Your task to perform on an android device: Open internet settings Image 0: 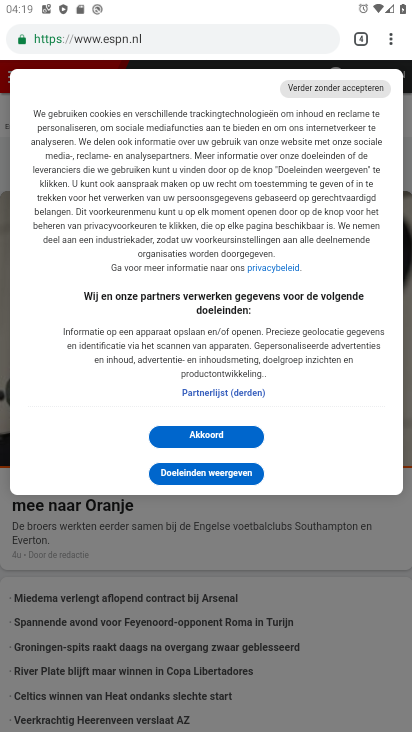
Step 0: press home button
Your task to perform on an android device: Open internet settings Image 1: 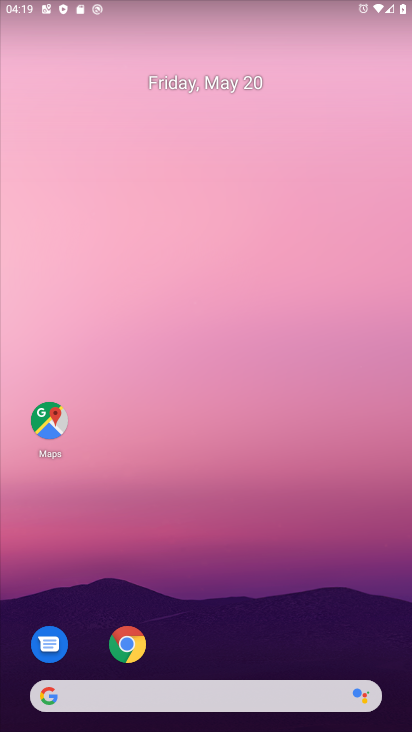
Step 1: drag from (245, 611) to (209, 126)
Your task to perform on an android device: Open internet settings Image 2: 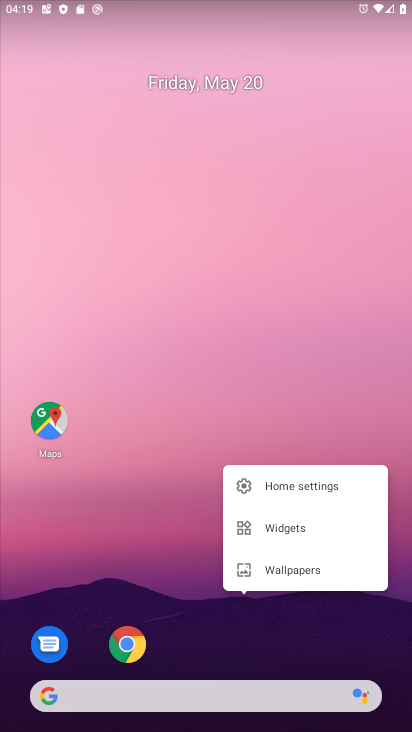
Step 2: click (209, 126)
Your task to perform on an android device: Open internet settings Image 3: 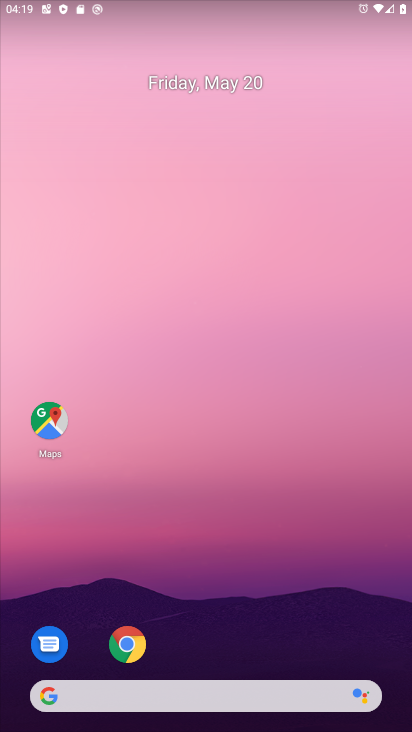
Step 3: drag from (256, 581) to (183, 64)
Your task to perform on an android device: Open internet settings Image 4: 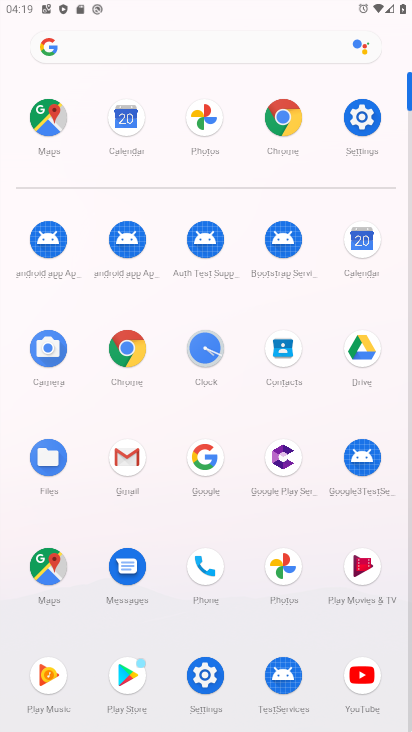
Step 4: click (358, 152)
Your task to perform on an android device: Open internet settings Image 5: 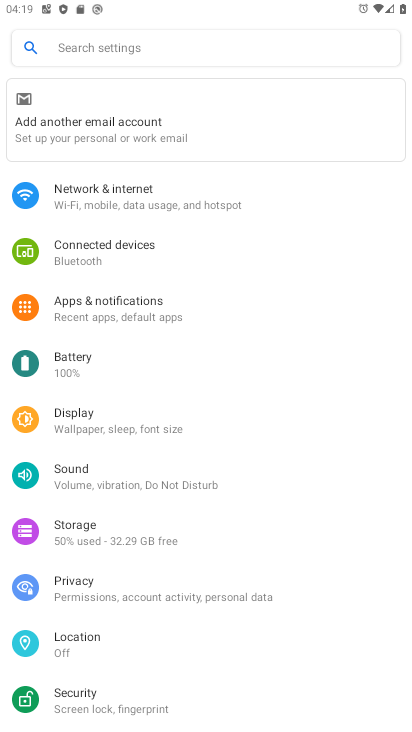
Step 5: click (203, 216)
Your task to perform on an android device: Open internet settings Image 6: 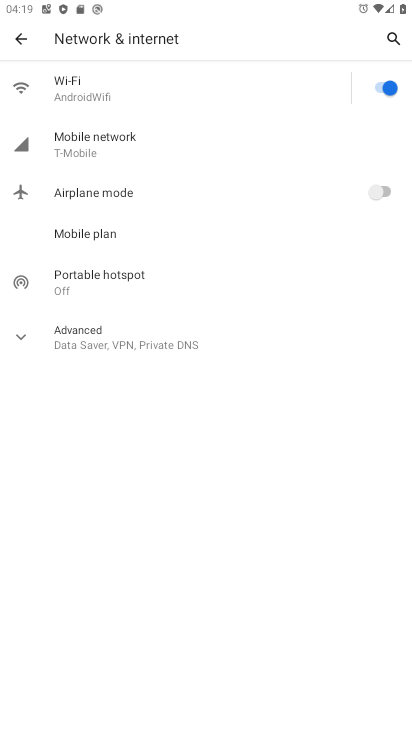
Step 6: task complete